Your task to perform on an android device: toggle improve location accuracy Image 0: 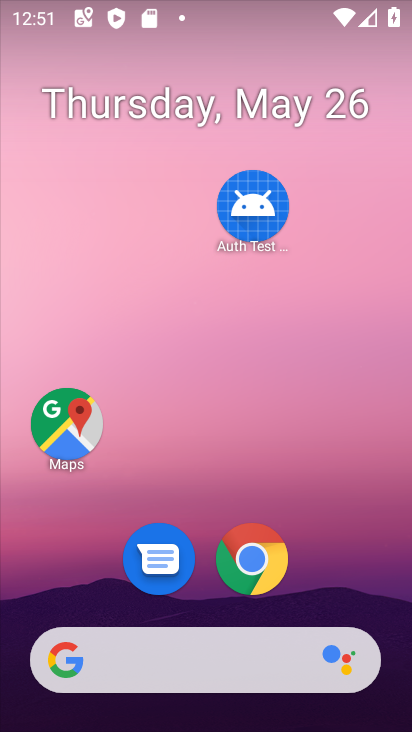
Step 0: drag from (366, 593) to (340, 133)
Your task to perform on an android device: toggle improve location accuracy Image 1: 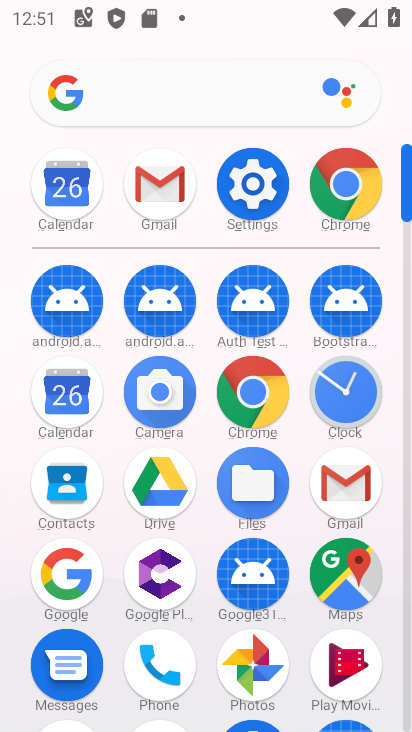
Step 1: click (243, 212)
Your task to perform on an android device: toggle improve location accuracy Image 2: 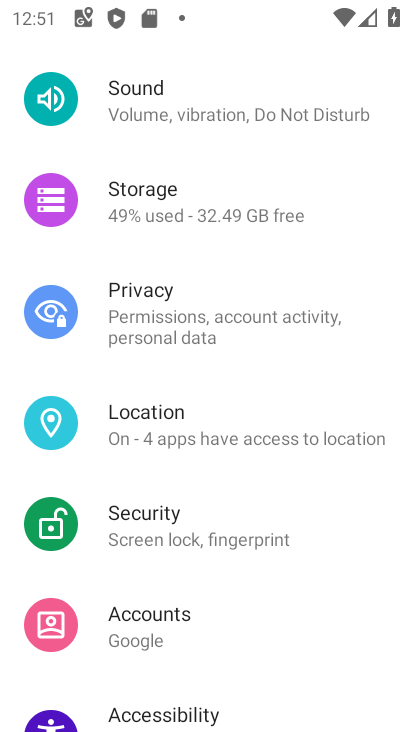
Step 2: click (233, 423)
Your task to perform on an android device: toggle improve location accuracy Image 3: 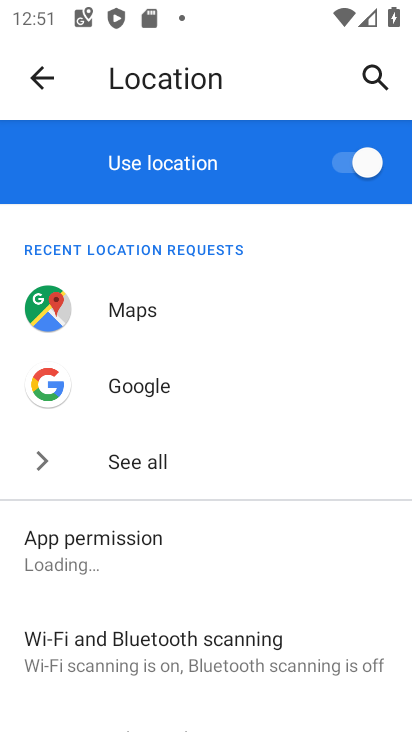
Step 3: drag from (239, 601) to (223, 330)
Your task to perform on an android device: toggle improve location accuracy Image 4: 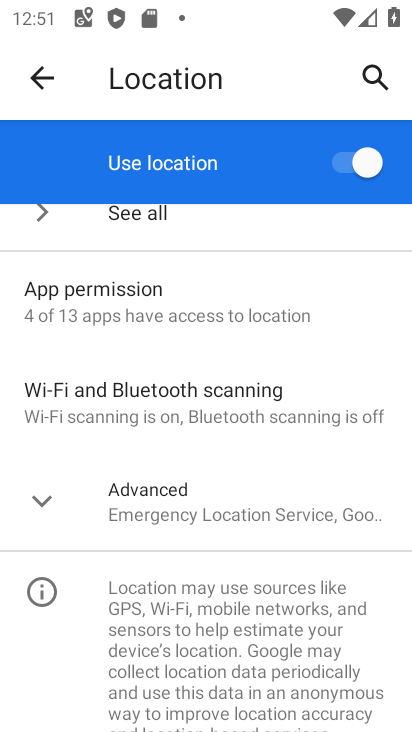
Step 4: click (208, 502)
Your task to perform on an android device: toggle improve location accuracy Image 5: 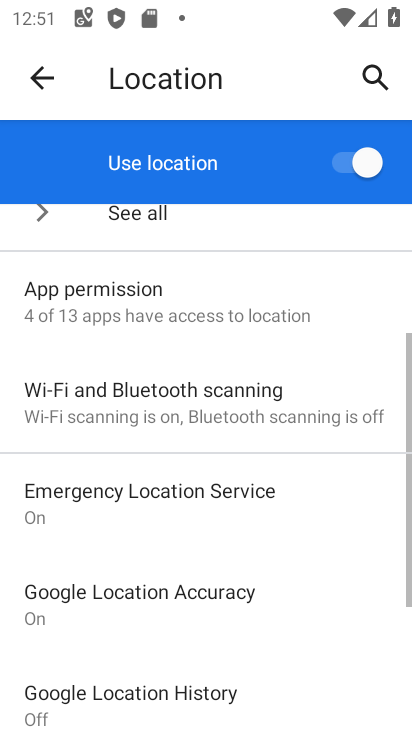
Step 5: drag from (249, 704) to (240, 497)
Your task to perform on an android device: toggle improve location accuracy Image 6: 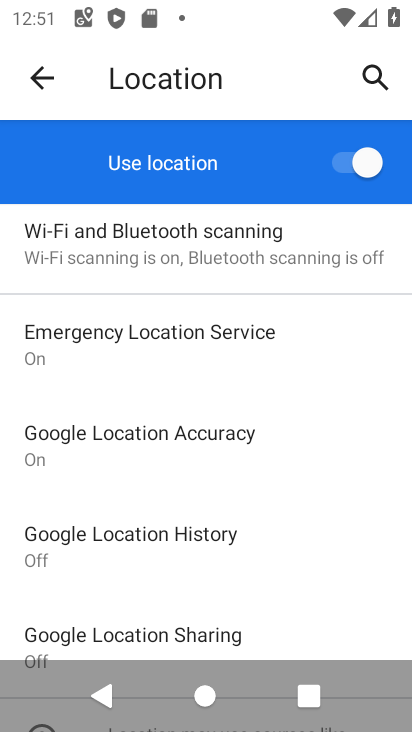
Step 6: click (214, 446)
Your task to perform on an android device: toggle improve location accuracy Image 7: 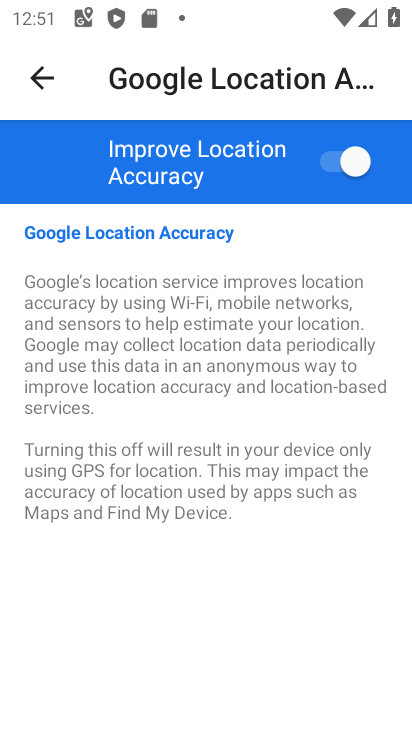
Step 7: click (363, 167)
Your task to perform on an android device: toggle improve location accuracy Image 8: 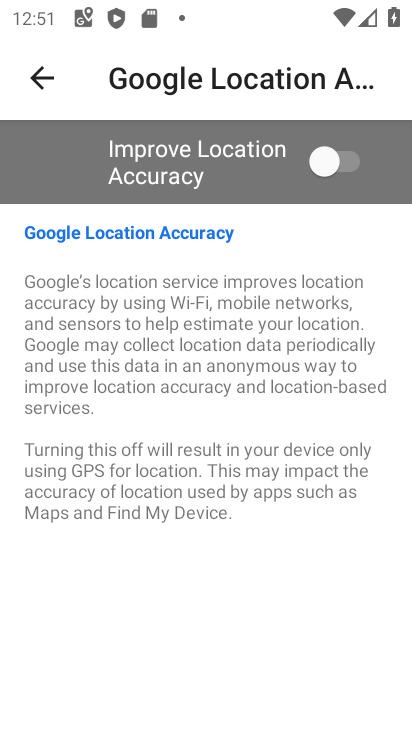
Step 8: task complete